Your task to perform on an android device: turn off wifi Image 0: 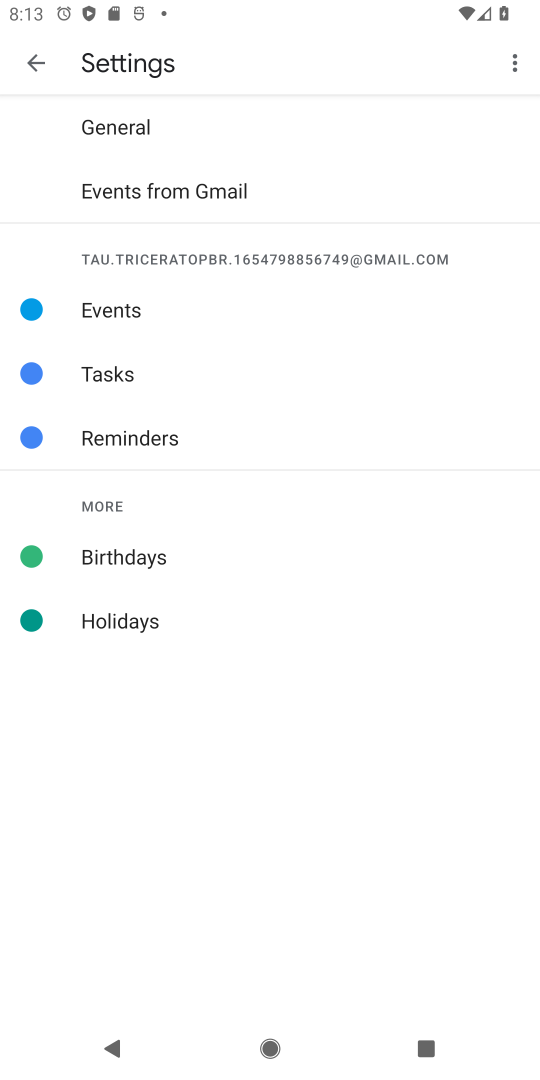
Step 0: press back button
Your task to perform on an android device: turn off wifi Image 1: 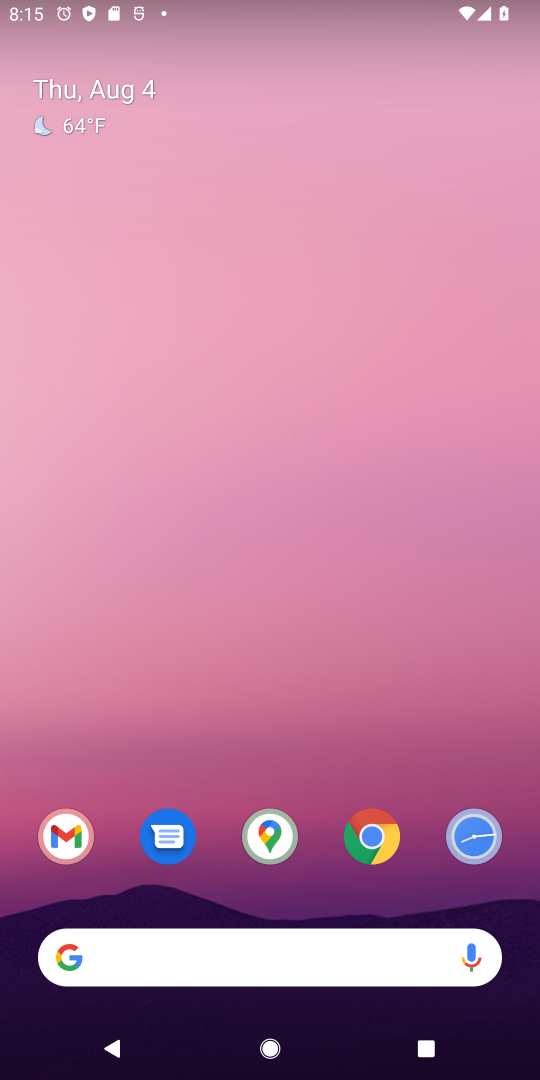
Step 1: drag from (87, 15) to (209, 862)
Your task to perform on an android device: turn off wifi Image 2: 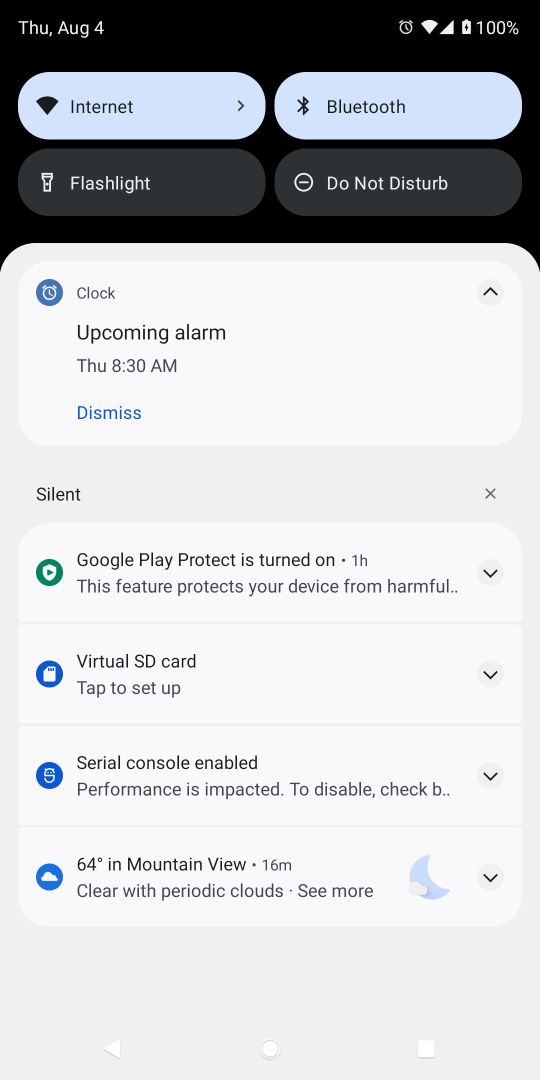
Step 2: click (105, 111)
Your task to perform on an android device: turn off wifi Image 3: 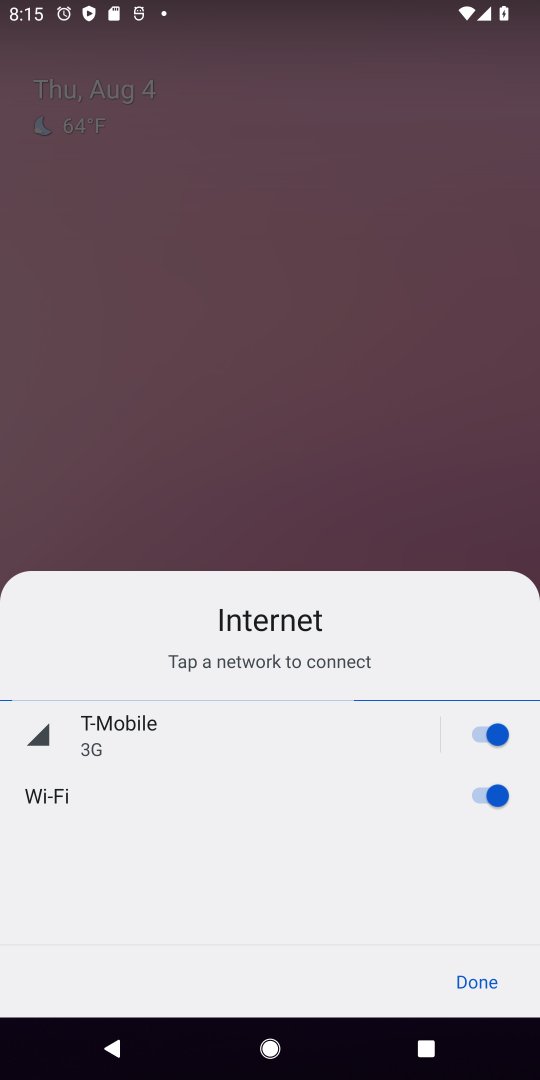
Step 3: task complete